Your task to perform on an android device: Go to location settings Image 0: 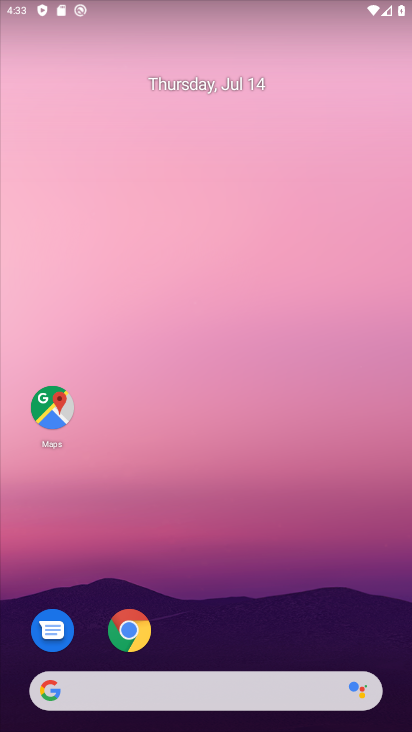
Step 0: drag from (151, 635) to (228, 152)
Your task to perform on an android device: Go to location settings Image 1: 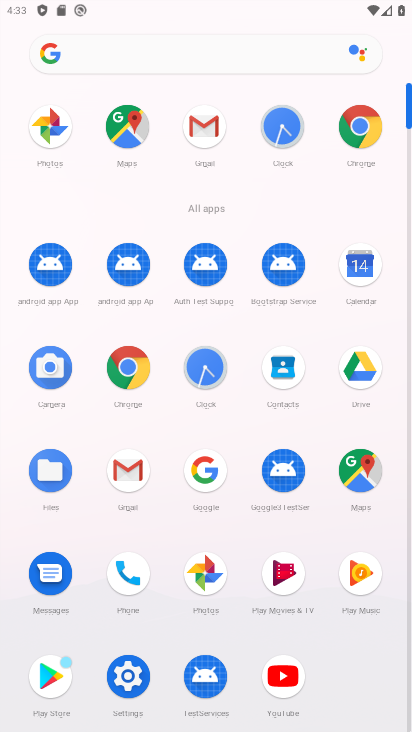
Step 1: click (115, 671)
Your task to perform on an android device: Go to location settings Image 2: 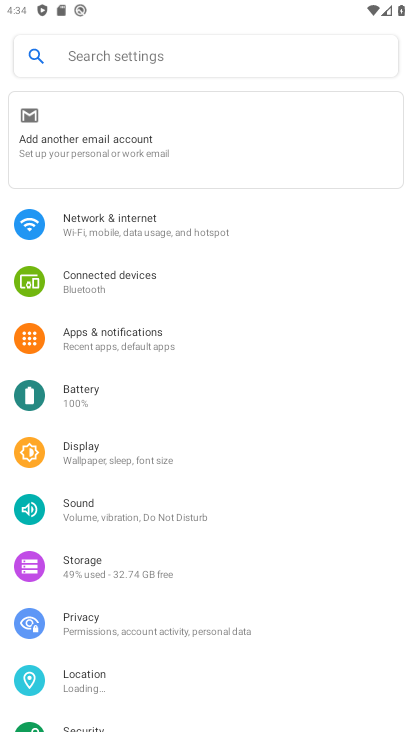
Step 2: click (117, 686)
Your task to perform on an android device: Go to location settings Image 3: 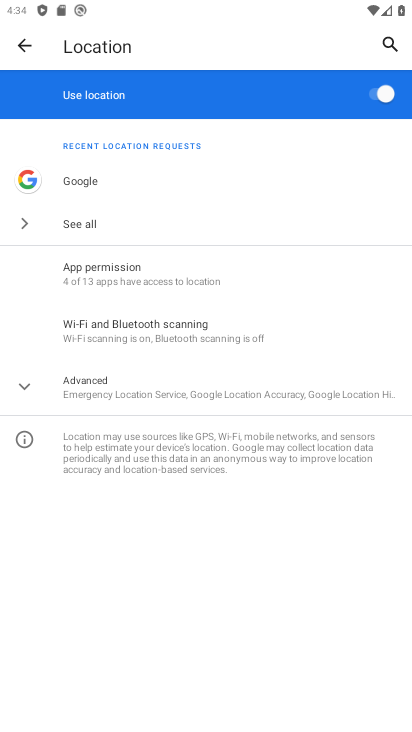
Step 3: task complete